Your task to perform on an android device: check the backup settings in the google photos Image 0: 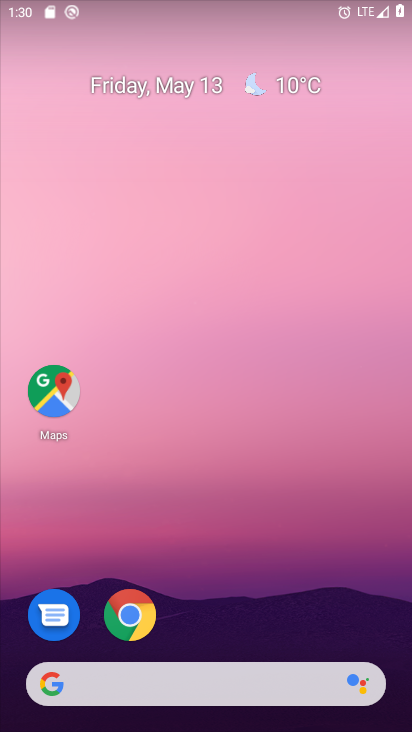
Step 0: drag from (208, 572) to (239, 42)
Your task to perform on an android device: check the backup settings in the google photos Image 1: 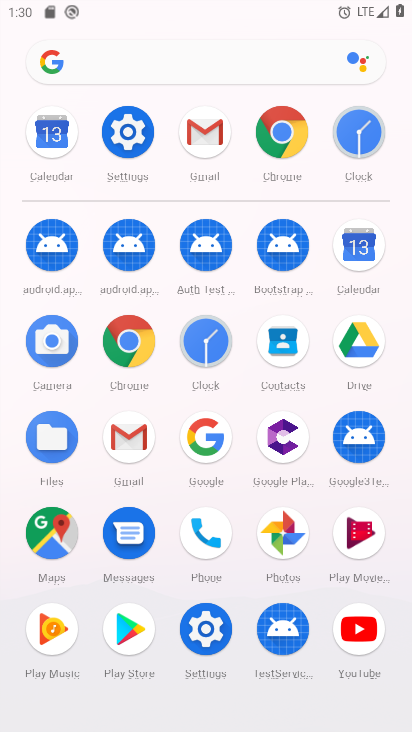
Step 1: click (286, 516)
Your task to perform on an android device: check the backup settings in the google photos Image 2: 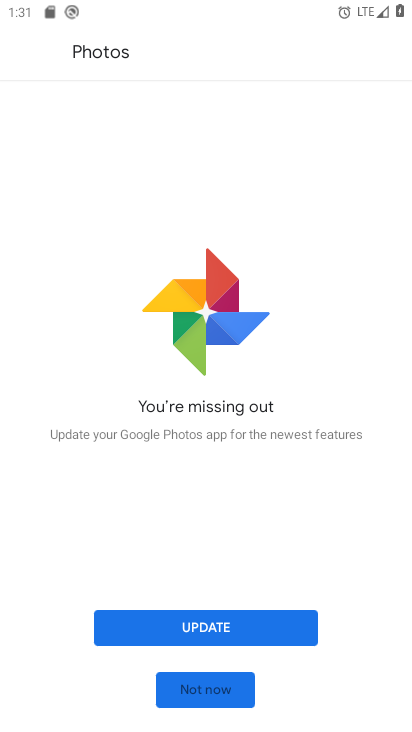
Step 2: click (211, 697)
Your task to perform on an android device: check the backup settings in the google photos Image 3: 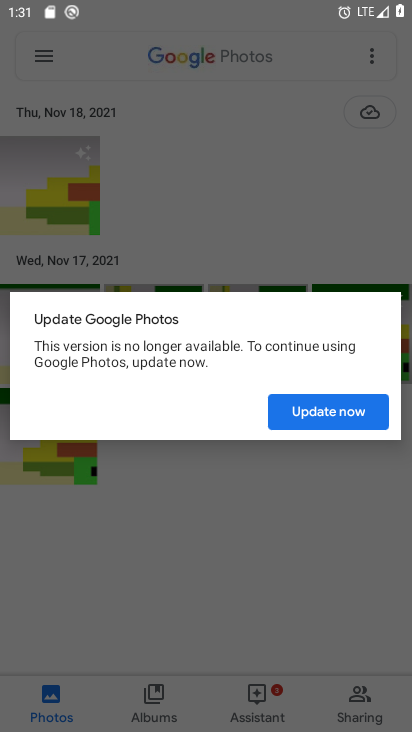
Step 3: click (345, 409)
Your task to perform on an android device: check the backup settings in the google photos Image 4: 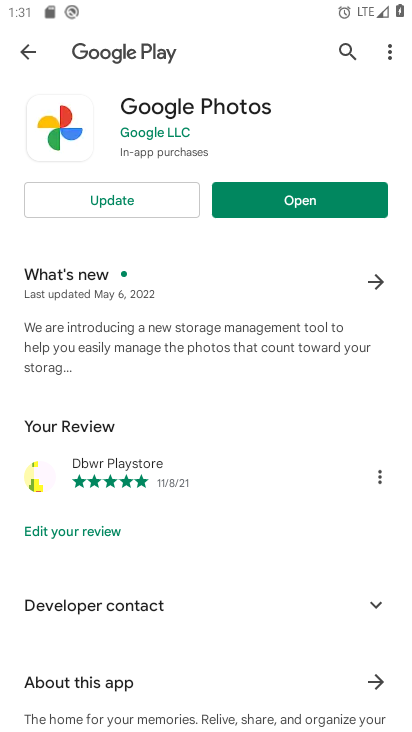
Step 4: click (305, 201)
Your task to perform on an android device: check the backup settings in the google photos Image 5: 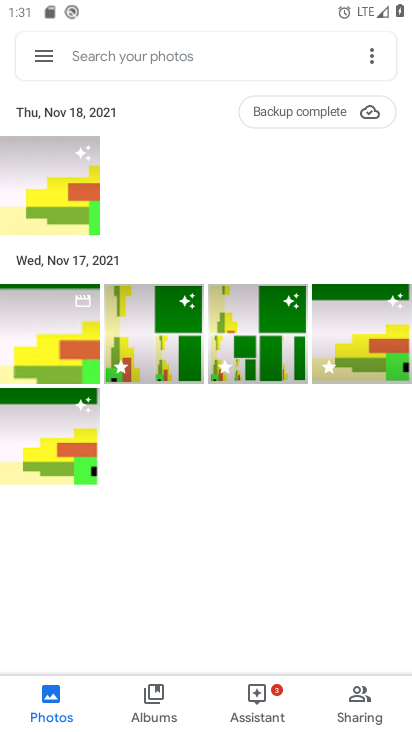
Step 5: click (34, 57)
Your task to perform on an android device: check the backup settings in the google photos Image 6: 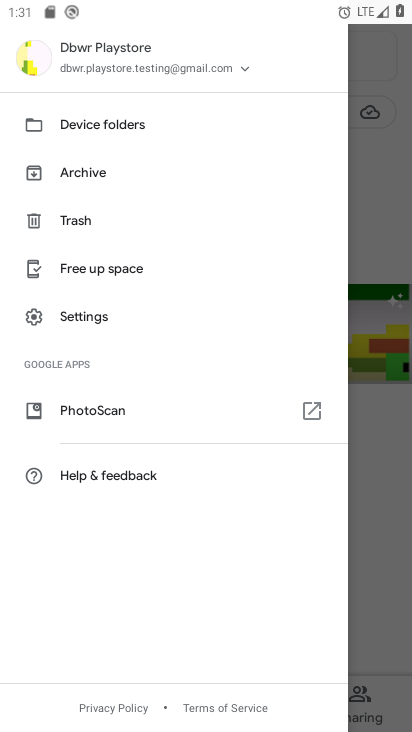
Step 6: click (84, 320)
Your task to perform on an android device: check the backup settings in the google photos Image 7: 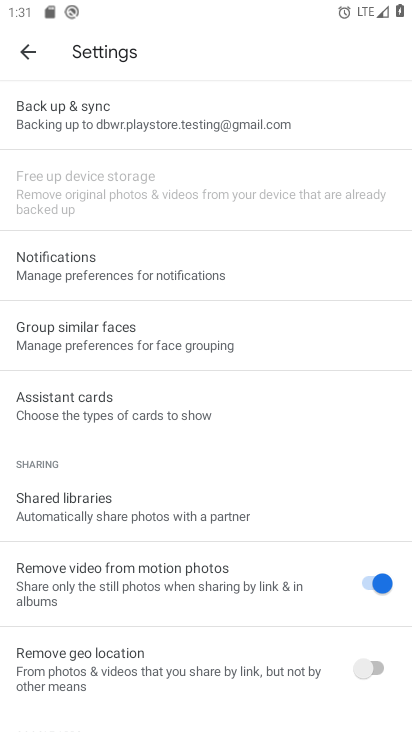
Step 7: click (223, 115)
Your task to perform on an android device: check the backup settings in the google photos Image 8: 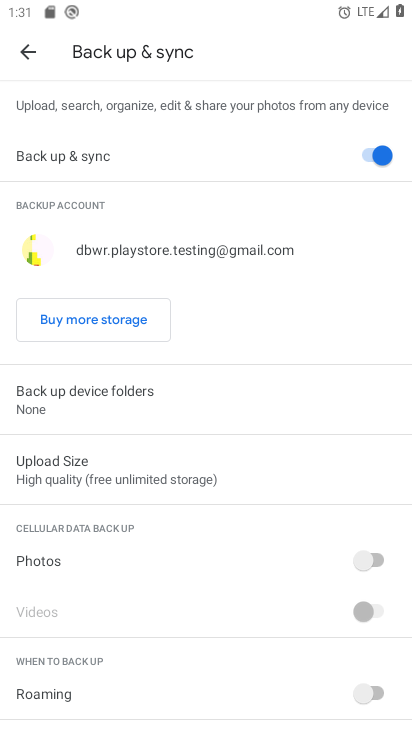
Step 8: task complete